Your task to perform on an android device: Open settings on Google Maps Image 0: 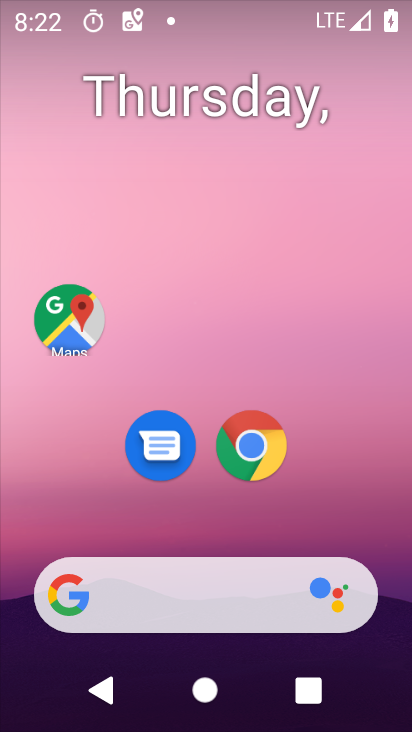
Step 0: drag from (234, 539) to (247, 179)
Your task to perform on an android device: Open settings on Google Maps Image 1: 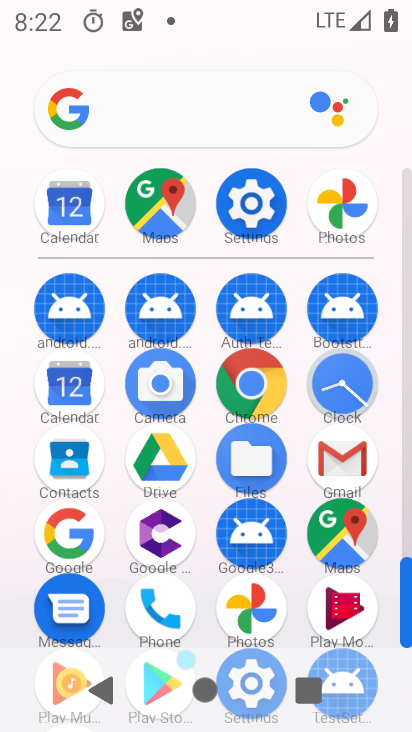
Step 1: click (340, 510)
Your task to perform on an android device: Open settings on Google Maps Image 2: 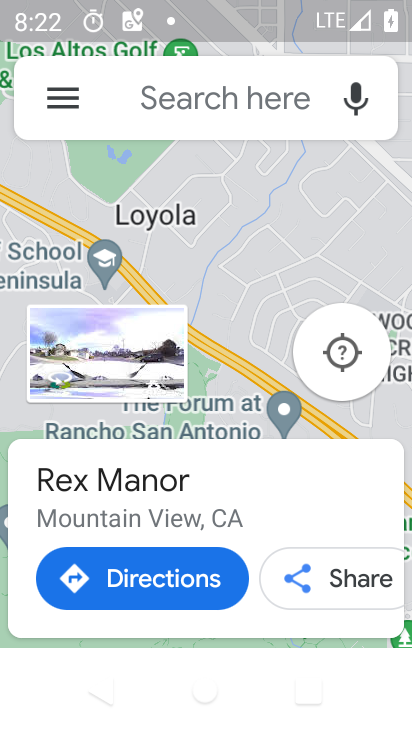
Step 2: task complete